Your task to perform on an android device: Open sound settings Image 0: 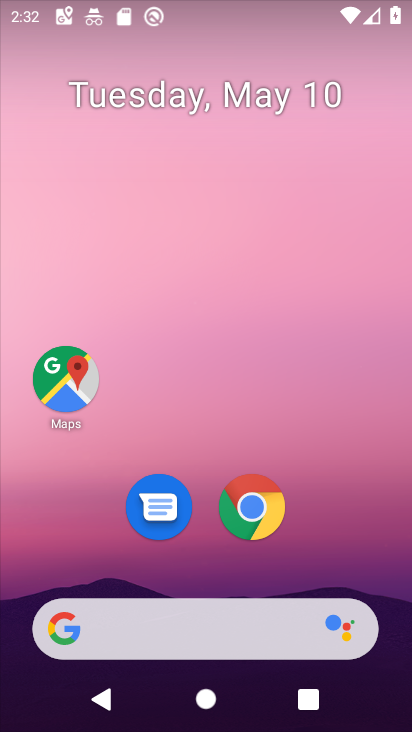
Step 0: drag from (186, 579) to (217, 325)
Your task to perform on an android device: Open sound settings Image 1: 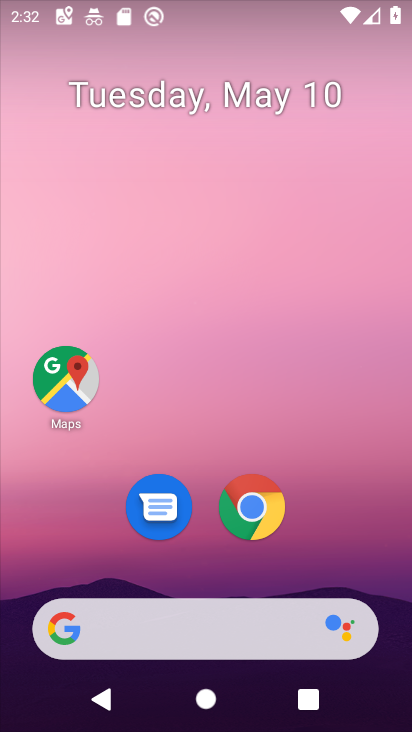
Step 1: drag from (125, 574) to (219, 120)
Your task to perform on an android device: Open sound settings Image 2: 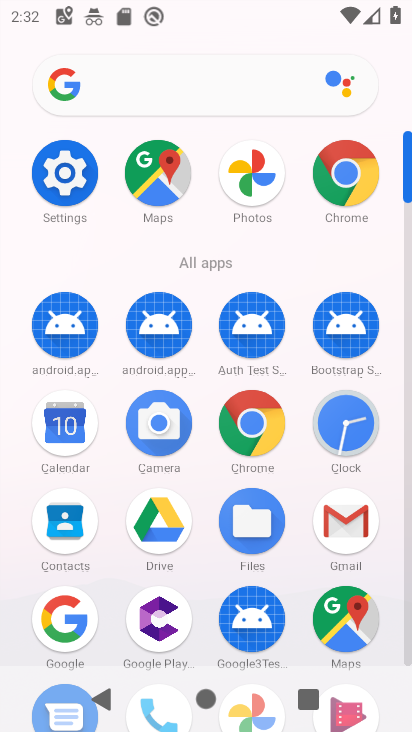
Step 2: click (57, 168)
Your task to perform on an android device: Open sound settings Image 3: 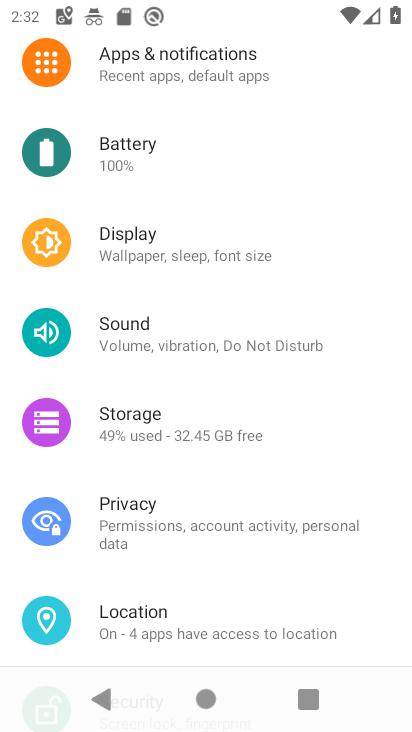
Step 3: click (118, 330)
Your task to perform on an android device: Open sound settings Image 4: 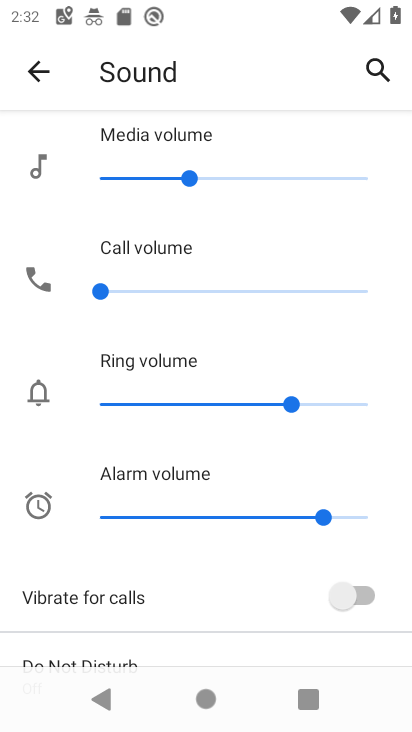
Step 4: task complete